Your task to perform on an android device: open a bookmark in the chrome app Image 0: 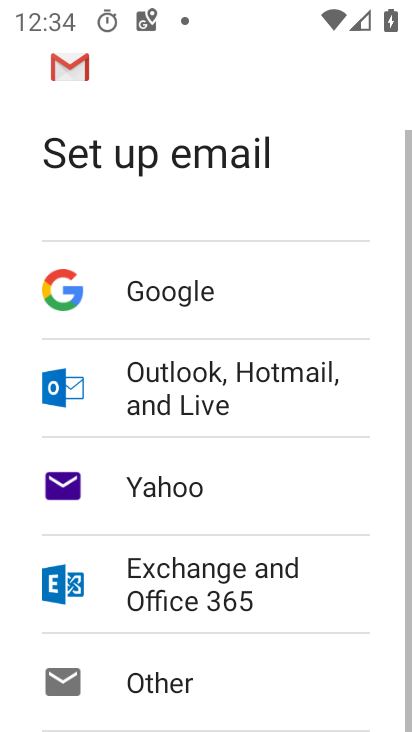
Step 0: press home button
Your task to perform on an android device: open a bookmark in the chrome app Image 1: 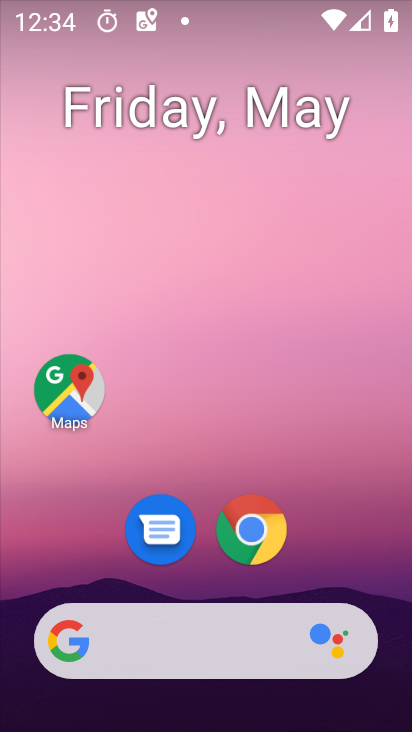
Step 1: click (268, 560)
Your task to perform on an android device: open a bookmark in the chrome app Image 2: 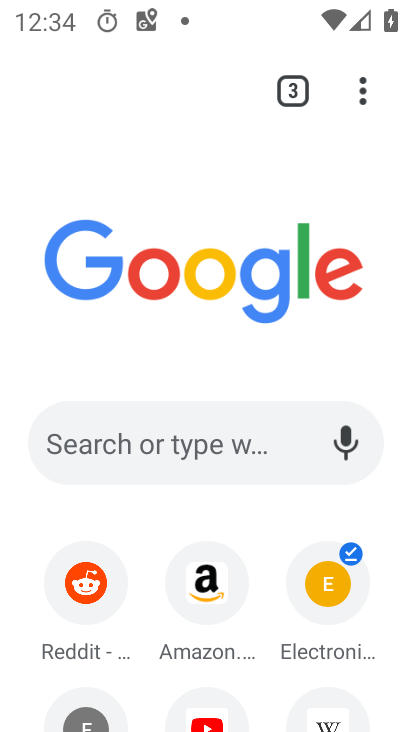
Step 2: click (358, 97)
Your task to perform on an android device: open a bookmark in the chrome app Image 3: 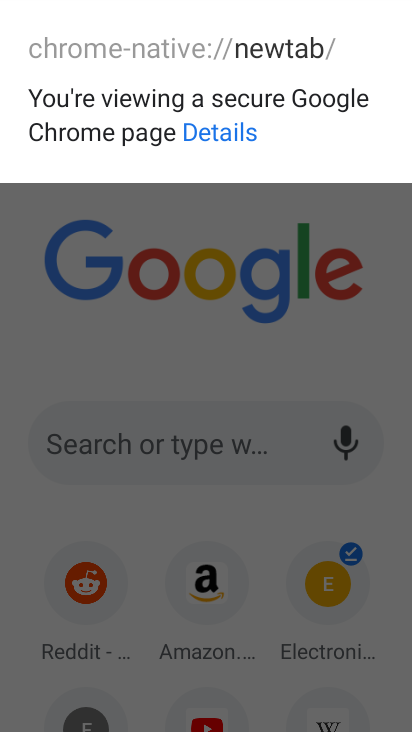
Step 3: click (304, 309)
Your task to perform on an android device: open a bookmark in the chrome app Image 4: 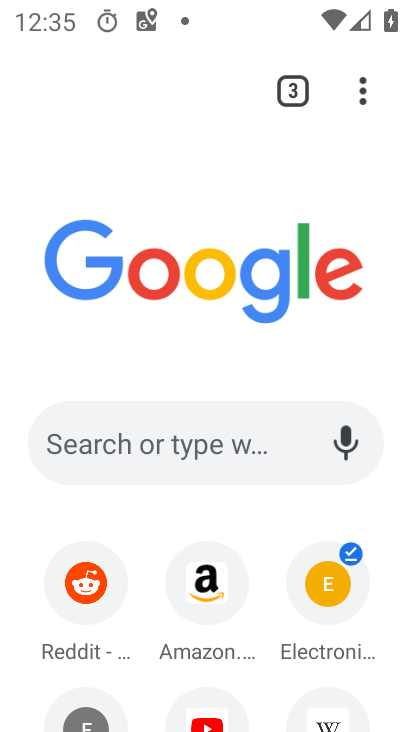
Step 4: click (365, 93)
Your task to perform on an android device: open a bookmark in the chrome app Image 5: 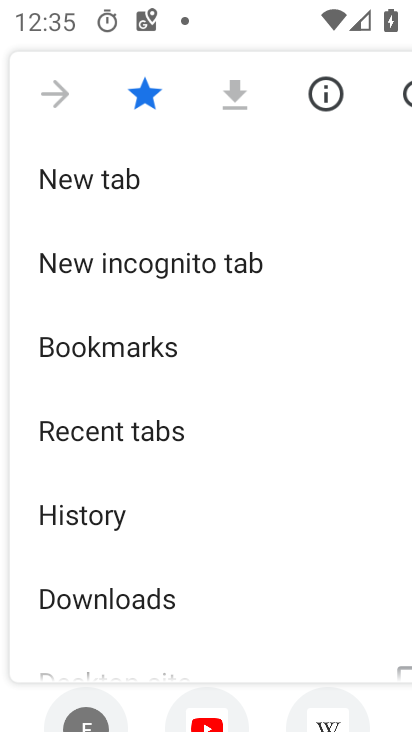
Step 5: click (133, 367)
Your task to perform on an android device: open a bookmark in the chrome app Image 6: 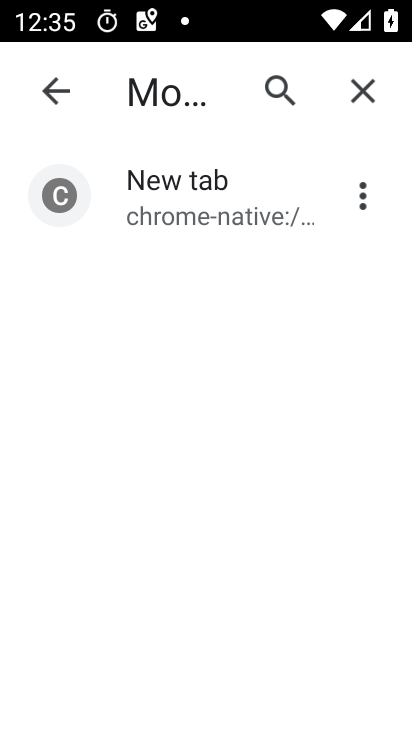
Step 6: click (142, 208)
Your task to perform on an android device: open a bookmark in the chrome app Image 7: 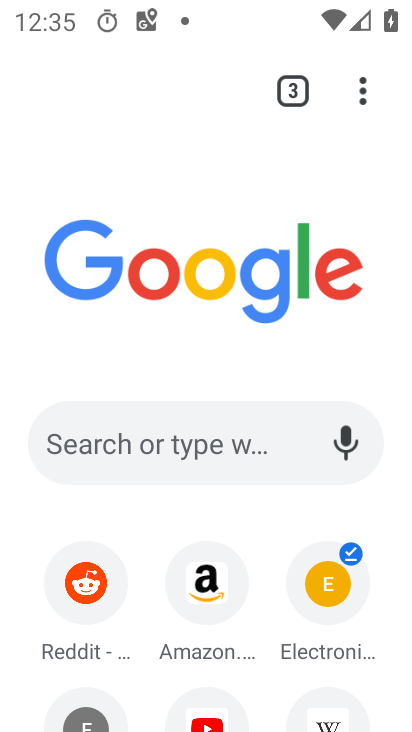
Step 7: click (361, 105)
Your task to perform on an android device: open a bookmark in the chrome app Image 8: 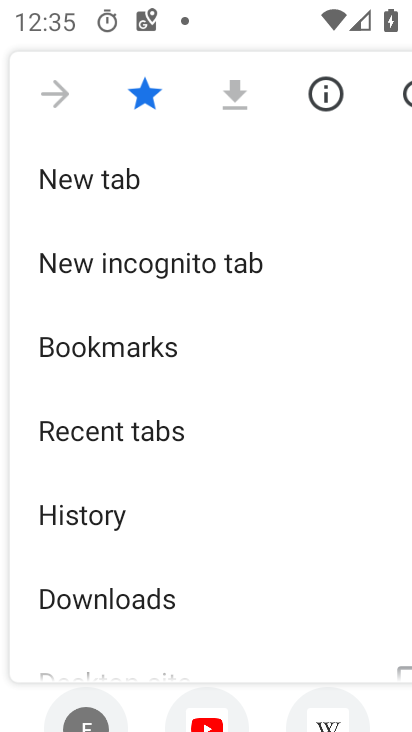
Step 8: click (155, 358)
Your task to perform on an android device: open a bookmark in the chrome app Image 9: 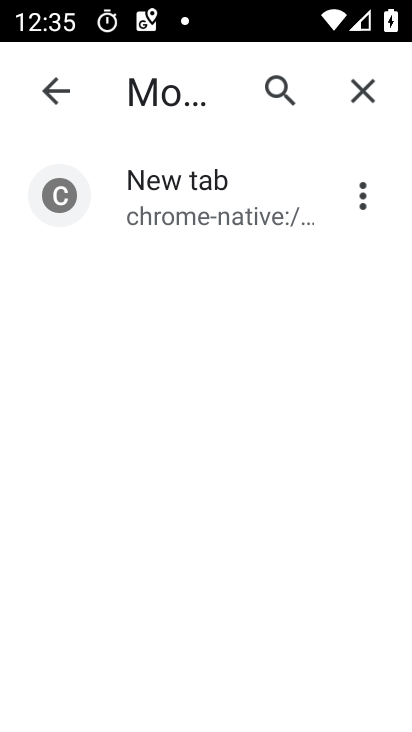
Step 9: task complete